Your task to perform on an android device: delete the emails in spam in the gmail app Image 0: 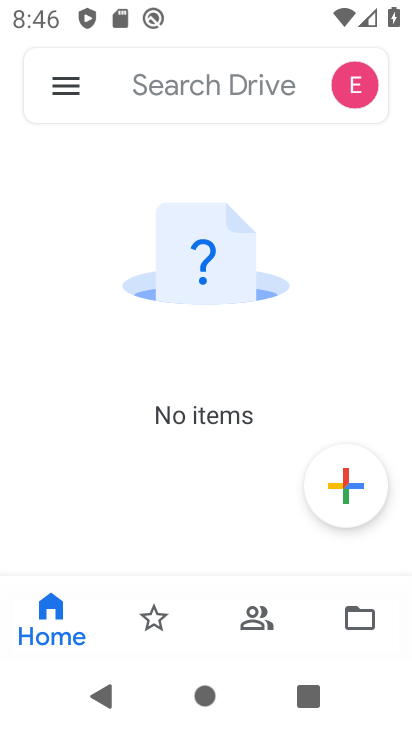
Step 0: press back button
Your task to perform on an android device: delete the emails in spam in the gmail app Image 1: 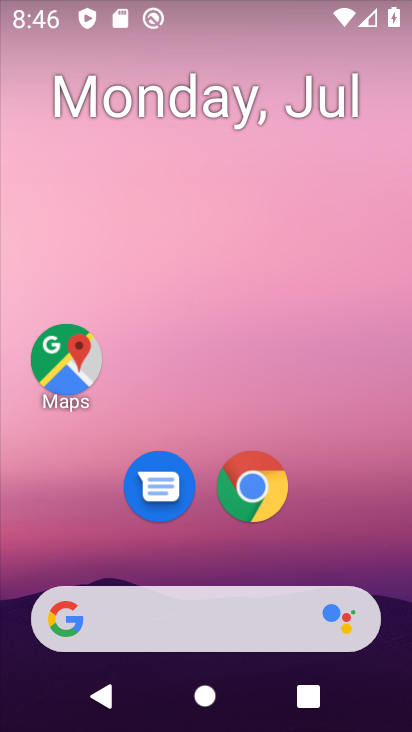
Step 1: drag from (216, 510) to (300, 4)
Your task to perform on an android device: delete the emails in spam in the gmail app Image 2: 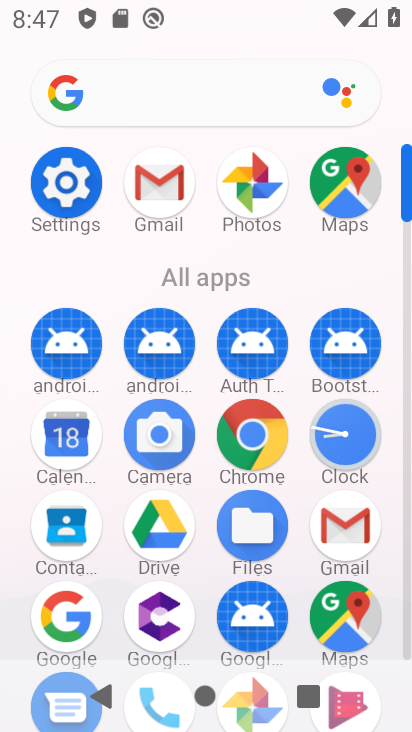
Step 2: click (168, 183)
Your task to perform on an android device: delete the emails in spam in the gmail app Image 3: 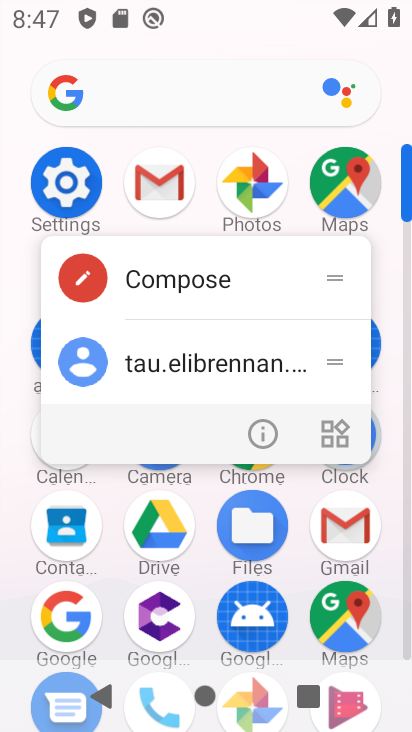
Step 3: click (161, 189)
Your task to perform on an android device: delete the emails in spam in the gmail app Image 4: 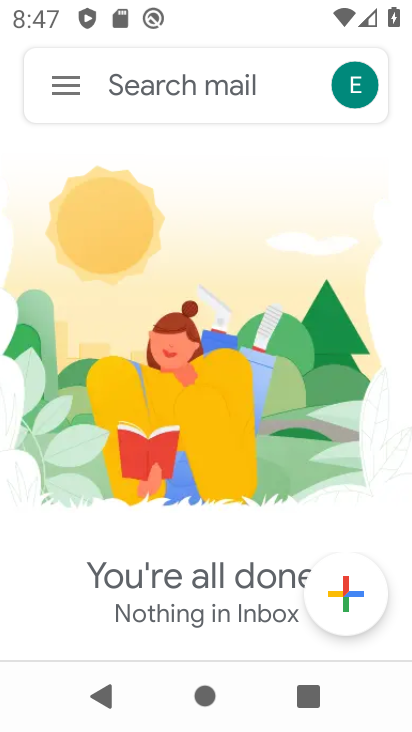
Step 4: click (45, 74)
Your task to perform on an android device: delete the emails in spam in the gmail app Image 5: 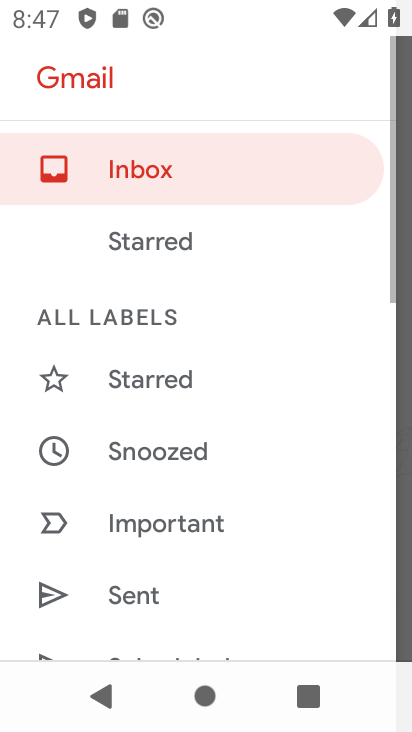
Step 5: drag from (167, 599) to (256, 0)
Your task to perform on an android device: delete the emails in spam in the gmail app Image 6: 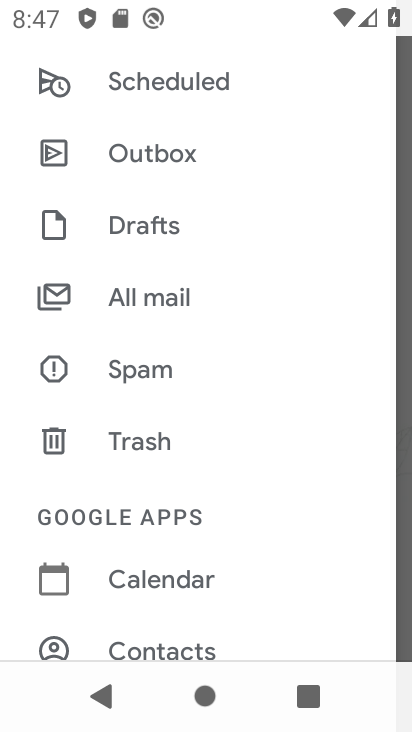
Step 6: click (154, 365)
Your task to perform on an android device: delete the emails in spam in the gmail app Image 7: 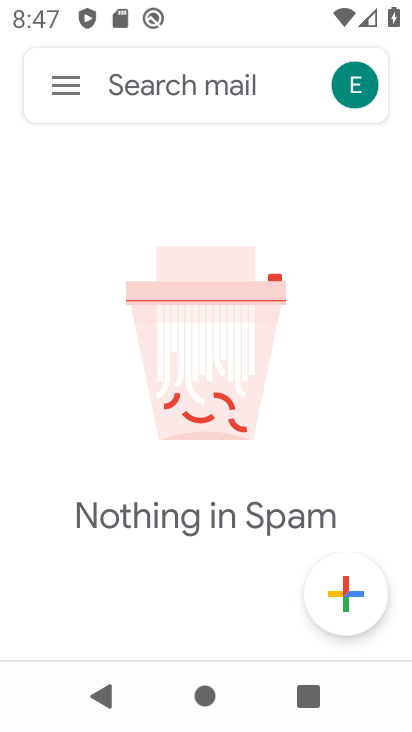
Step 7: task complete